Your task to perform on an android device: search for starred emails in the gmail app Image 0: 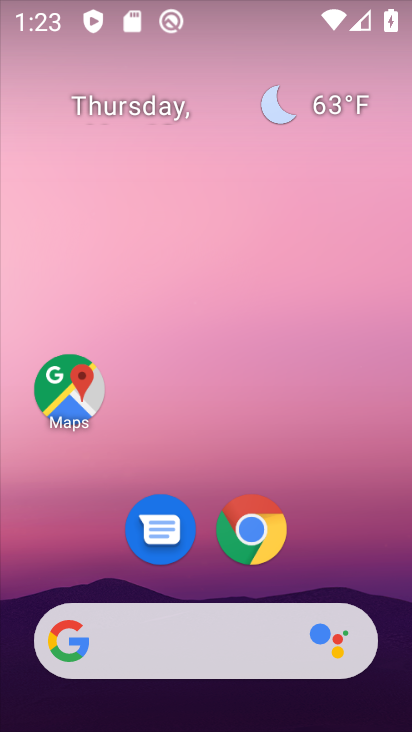
Step 0: drag from (348, 549) to (264, 116)
Your task to perform on an android device: search for starred emails in the gmail app Image 1: 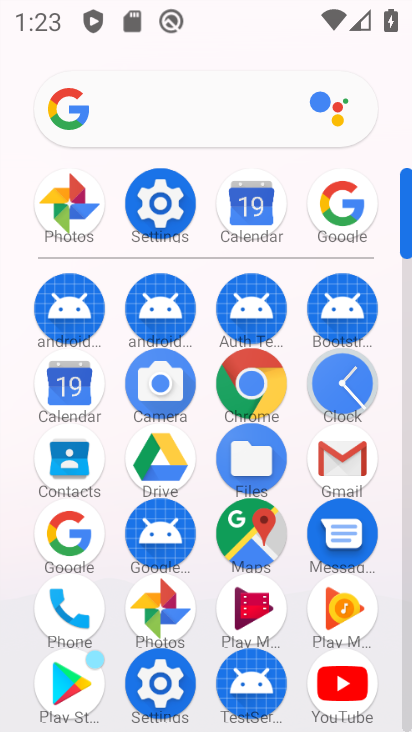
Step 1: click (342, 457)
Your task to perform on an android device: search for starred emails in the gmail app Image 2: 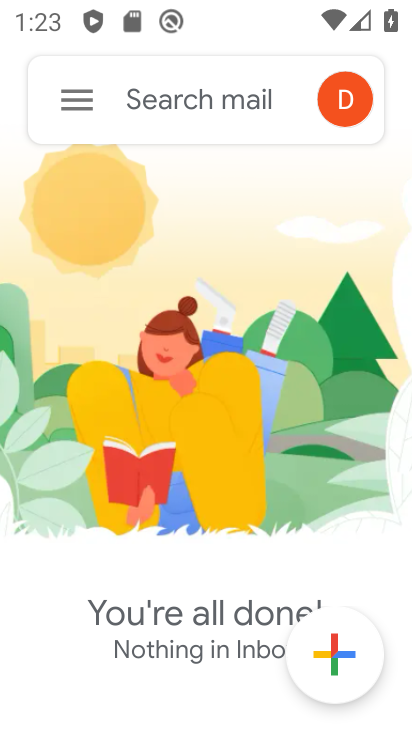
Step 2: click (188, 102)
Your task to perform on an android device: search for starred emails in the gmail app Image 3: 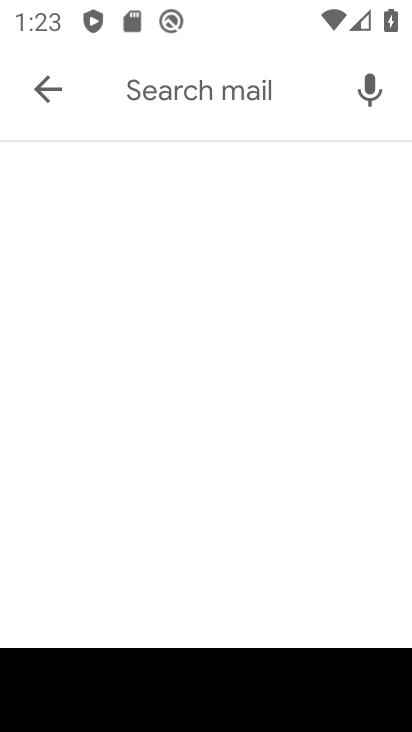
Step 3: type "Starred"
Your task to perform on an android device: search for starred emails in the gmail app Image 4: 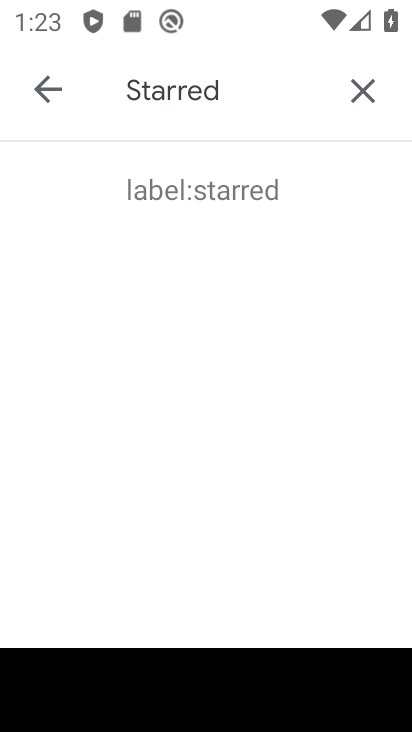
Step 4: click (214, 193)
Your task to perform on an android device: search for starred emails in the gmail app Image 5: 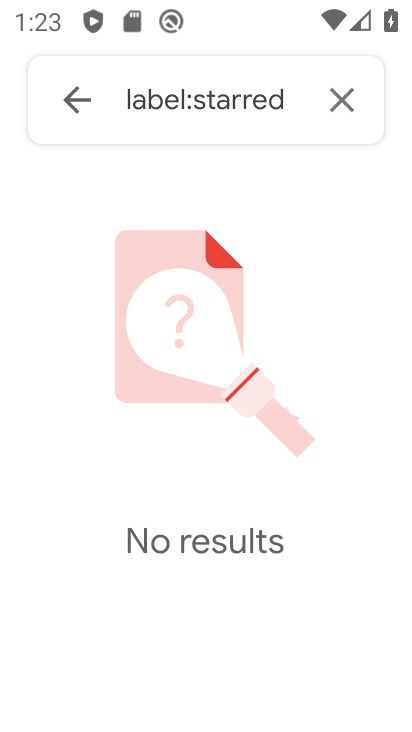
Step 5: click (343, 100)
Your task to perform on an android device: search for starred emails in the gmail app Image 6: 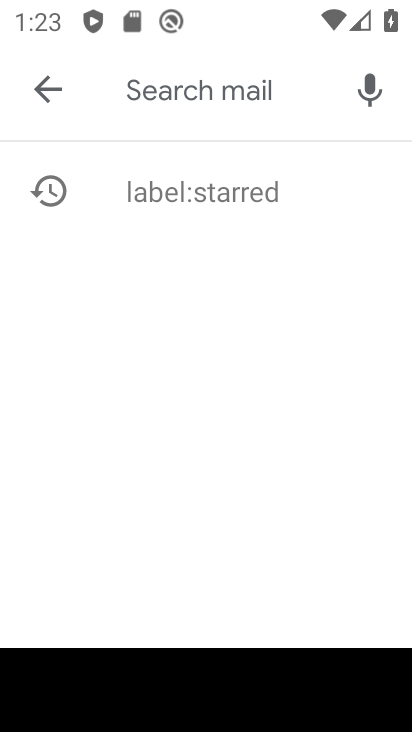
Step 6: click (35, 90)
Your task to perform on an android device: search for starred emails in the gmail app Image 7: 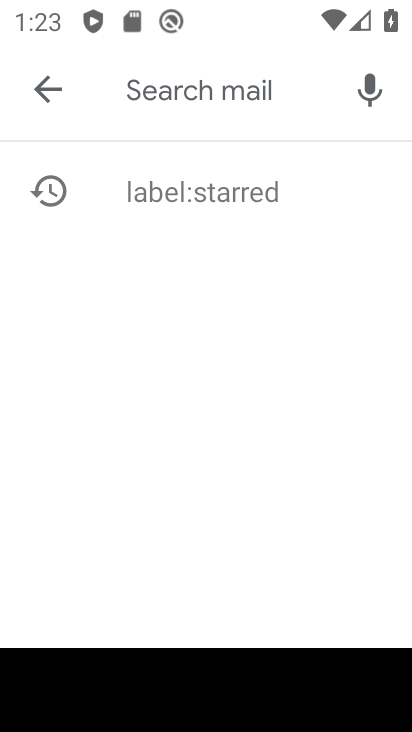
Step 7: press back button
Your task to perform on an android device: search for starred emails in the gmail app Image 8: 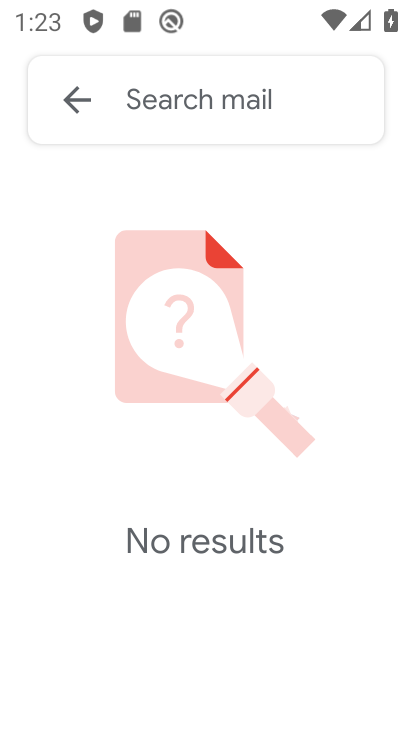
Step 8: press back button
Your task to perform on an android device: search for starred emails in the gmail app Image 9: 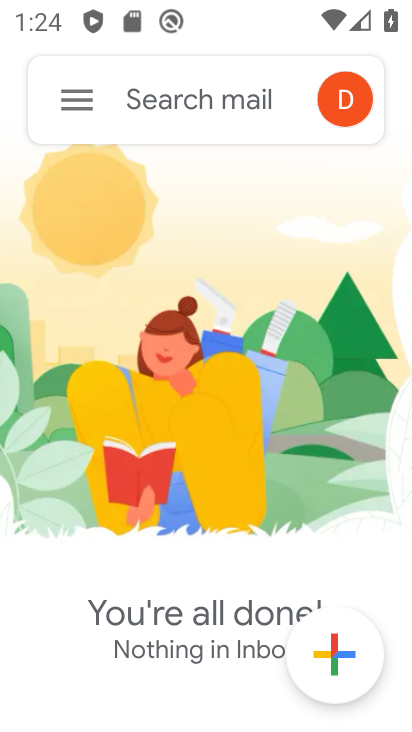
Step 9: click (79, 109)
Your task to perform on an android device: search for starred emails in the gmail app Image 10: 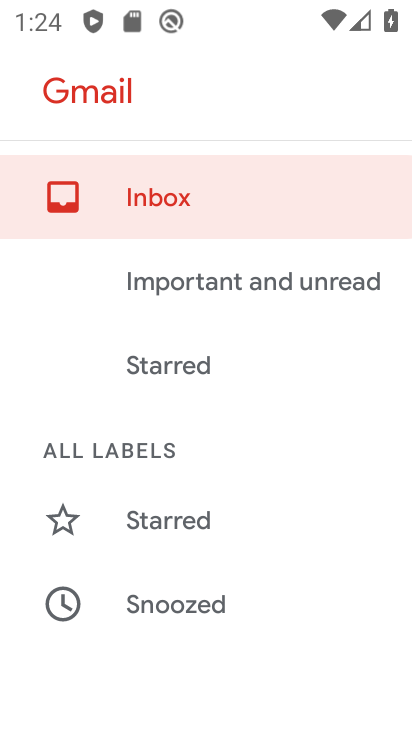
Step 10: click (171, 520)
Your task to perform on an android device: search for starred emails in the gmail app Image 11: 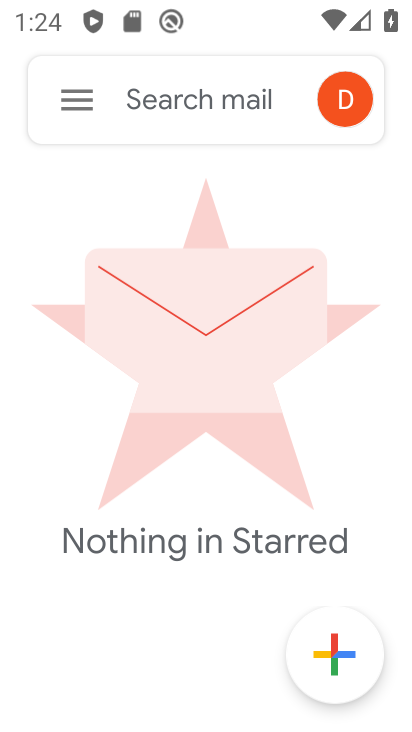
Step 11: task complete